Your task to perform on an android device: turn pop-ups off in chrome Image 0: 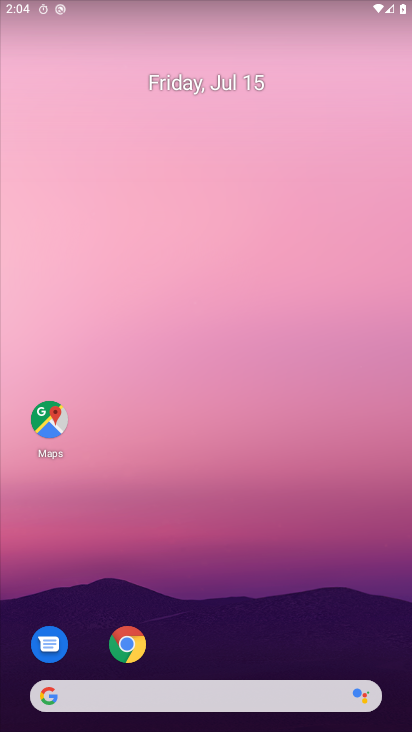
Step 0: click (133, 642)
Your task to perform on an android device: turn pop-ups off in chrome Image 1: 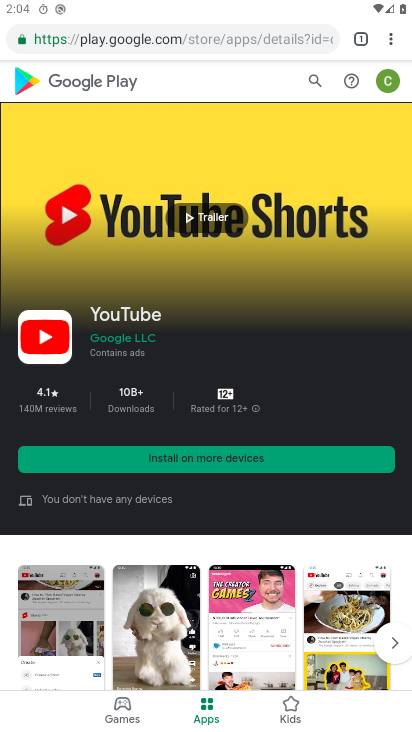
Step 1: click (387, 37)
Your task to perform on an android device: turn pop-ups off in chrome Image 2: 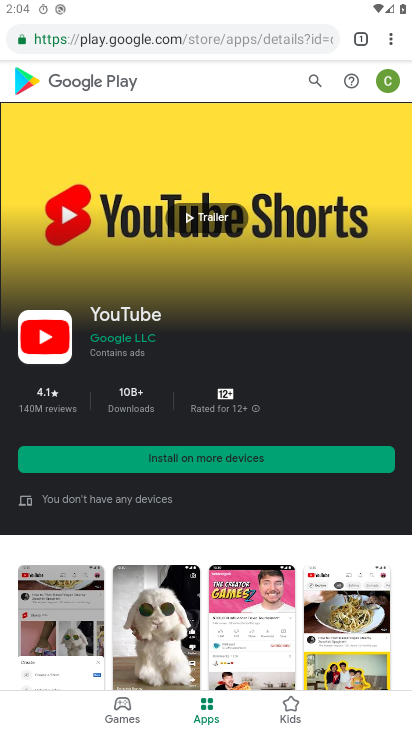
Step 2: click (393, 32)
Your task to perform on an android device: turn pop-ups off in chrome Image 3: 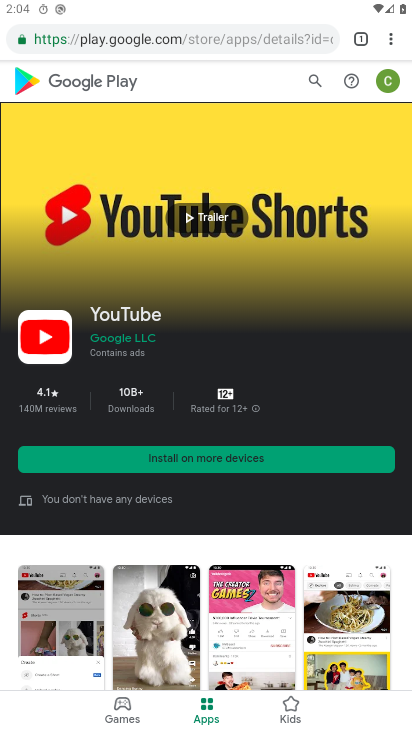
Step 3: click (384, 28)
Your task to perform on an android device: turn pop-ups off in chrome Image 4: 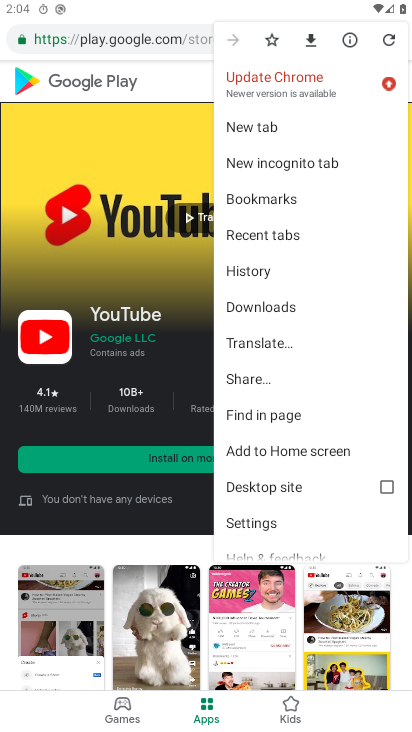
Step 4: click (261, 523)
Your task to perform on an android device: turn pop-ups off in chrome Image 5: 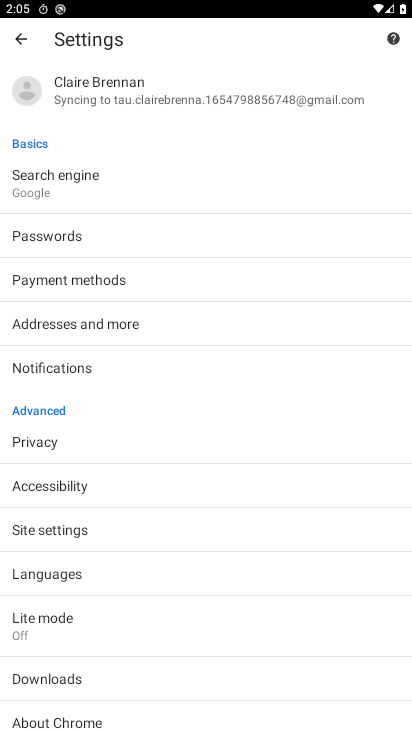
Step 5: click (58, 521)
Your task to perform on an android device: turn pop-ups off in chrome Image 6: 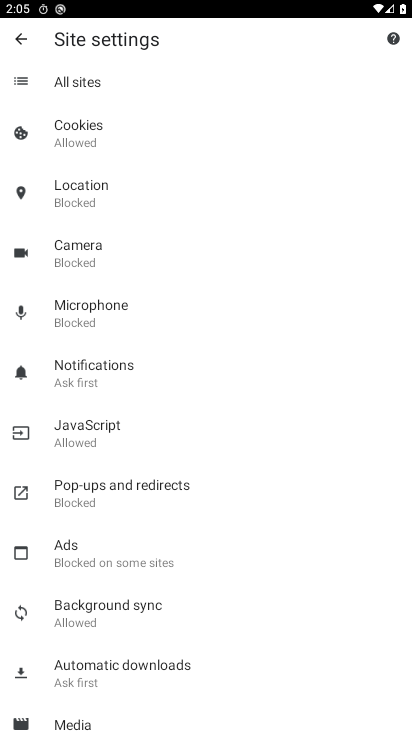
Step 6: click (128, 488)
Your task to perform on an android device: turn pop-ups off in chrome Image 7: 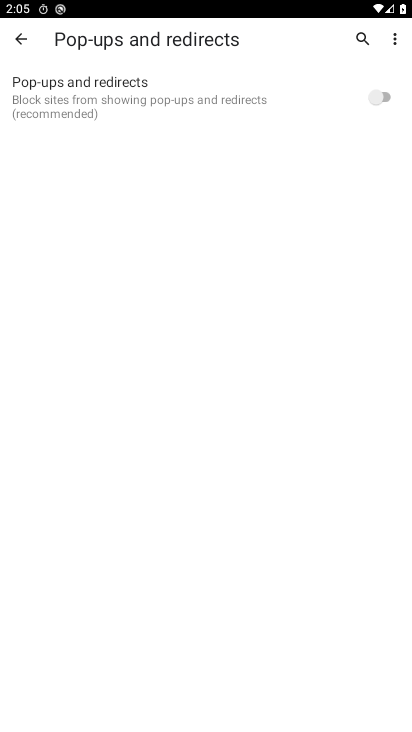
Step 7: task complete